Your task to perform on an android device: Do I have any events today? Image 0: 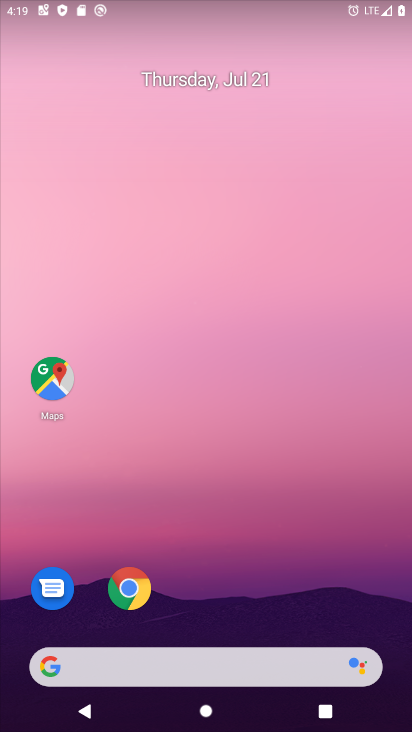
Step 0: drag from (245, 609) to (229, 61)
Your task to perform on an android device: Do I have any events today? Image 1: 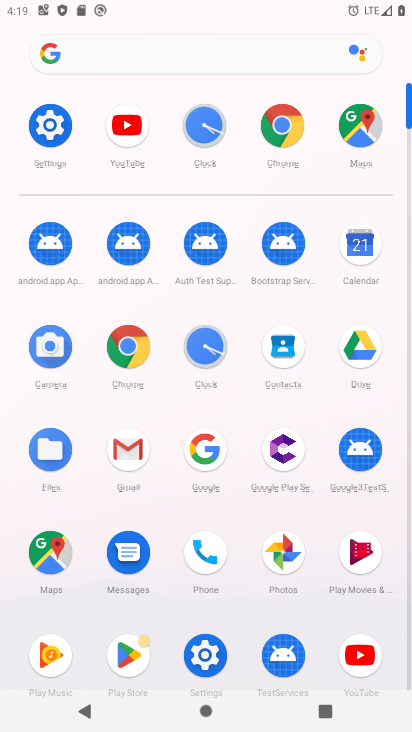
Step 1: click (350, 238)
Your task to perform on an android device: Do I have any events today? Image 2: 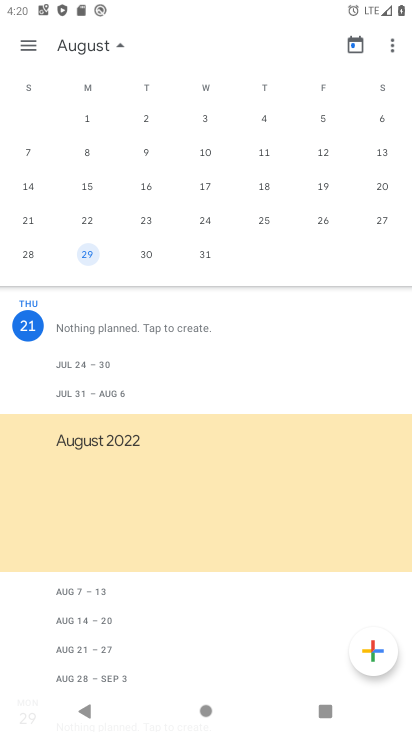
Step 2: drag from (69, 195) to (406, 202)
Your task to perform on an android device: Do I have any events today? Image 3: 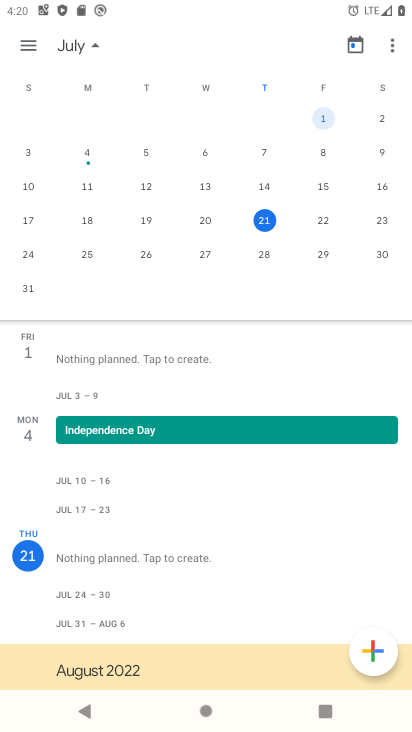
Step 3: click (257, 218)
Your task to perform on an android device: Do I have any events today? Image 4: 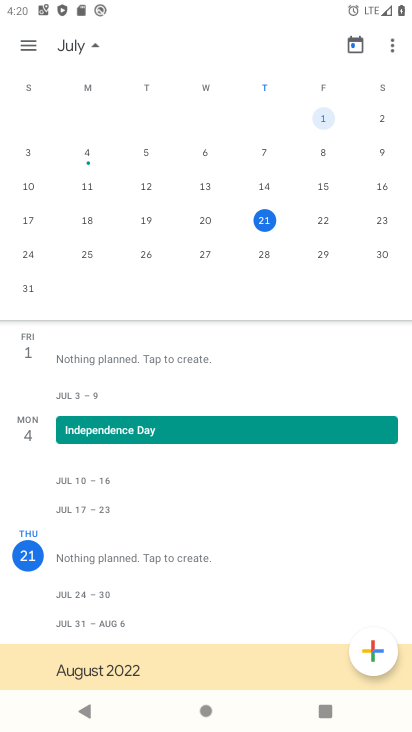
Step 4: click (264, 218)
Your task to perform on an android device: Do I have any events today? Image 5: 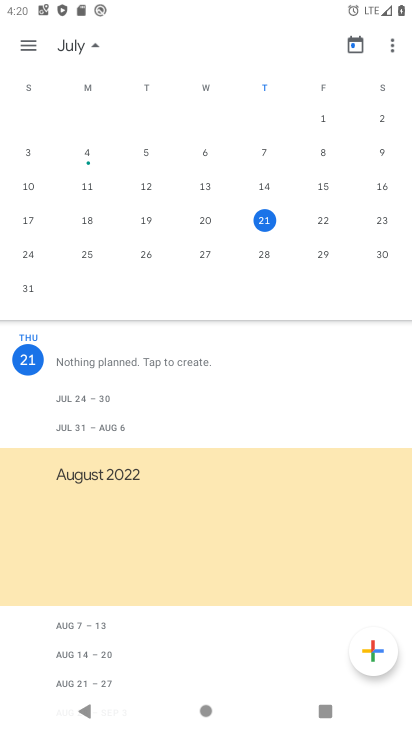
Step 5: task complete